Your task to perform on an android device: Go to calendar. Show me events next week Image 0: 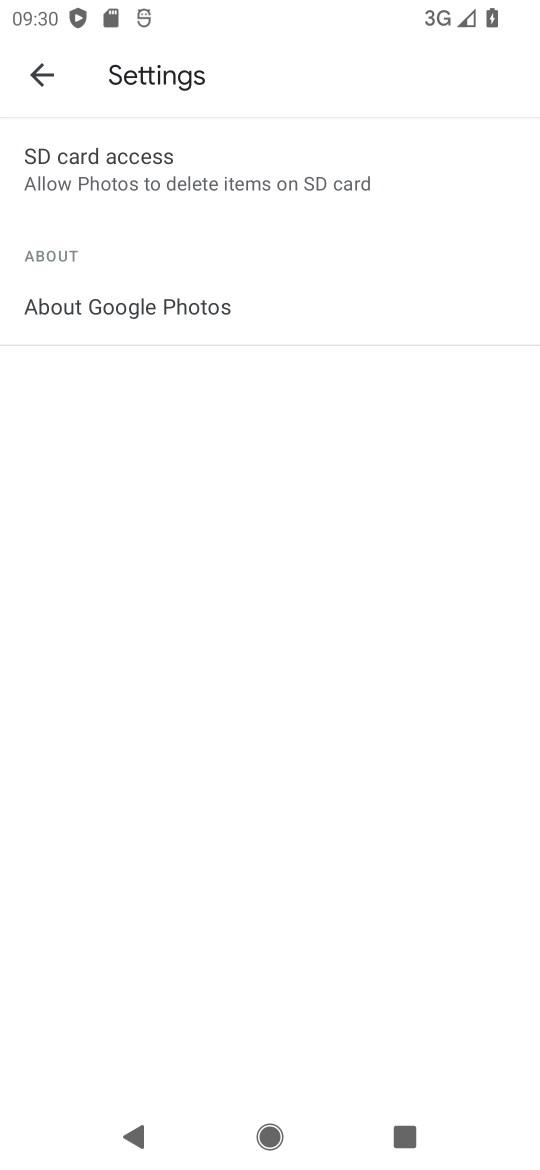
Step 0: press home button
Your task to perform on an android device: Go to calendar. Show me events next week Image 1: 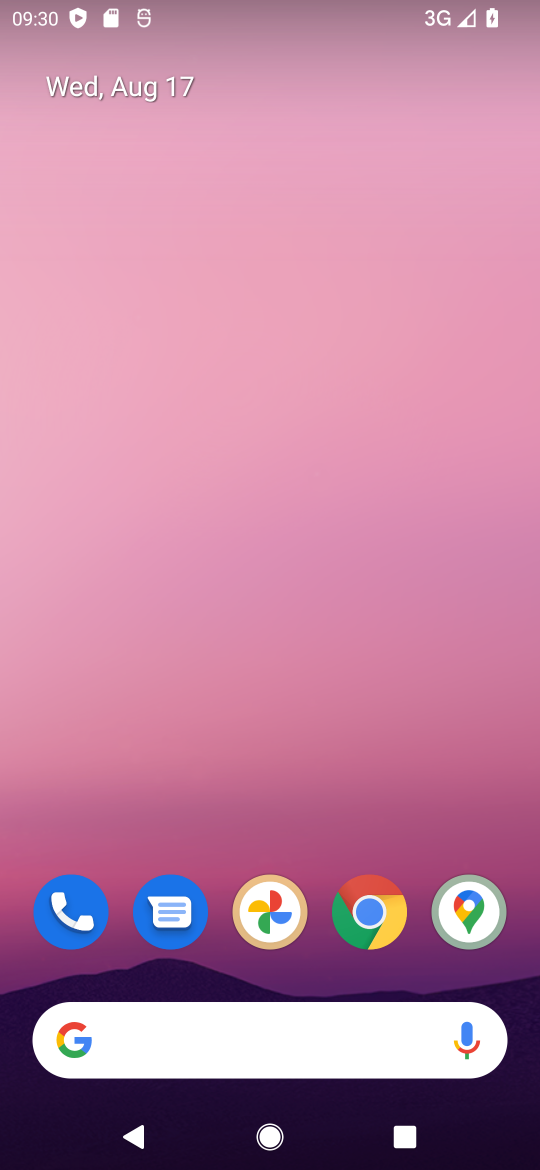
Step 1: drag from (255, 924) to (259, 414)
Your task to perform on an android device: Go to calendar. Show me events next week Image 2: 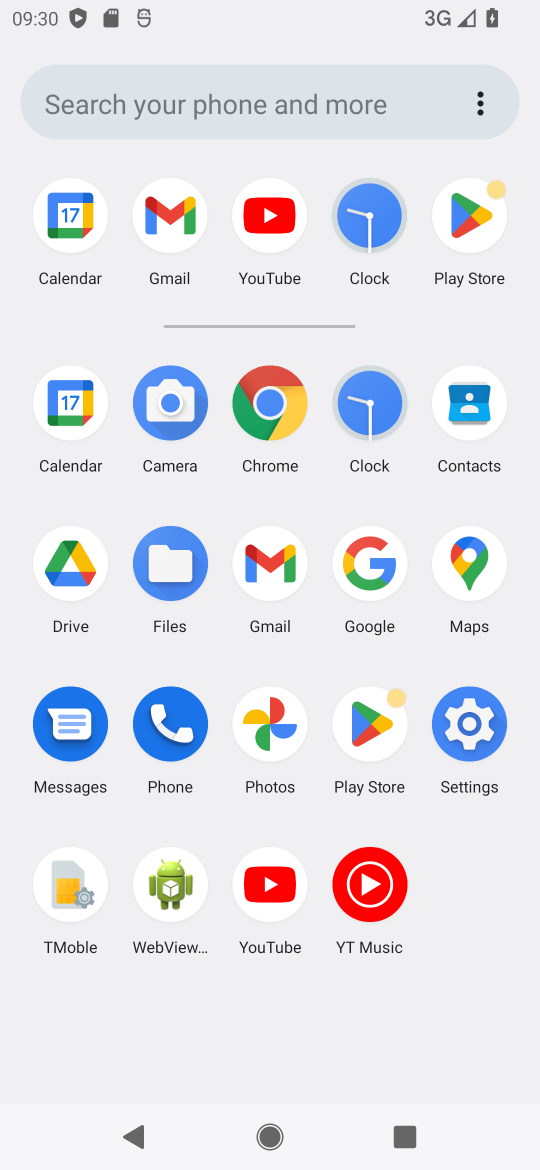
Step 2: click (77, 399)
Your task to perform on an android device: Go to calendar. Show me events next week Image 3: 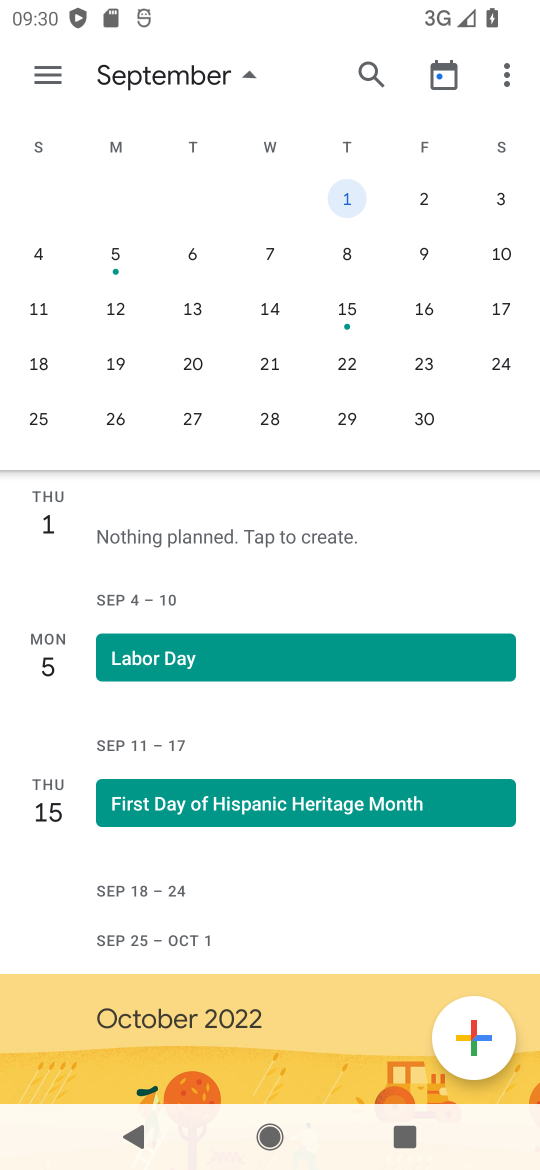
Step 3: drag from (496, 369) to (386, 365)
Your task to perform on an android device: Go to calendar. Show me events next week Image 4: 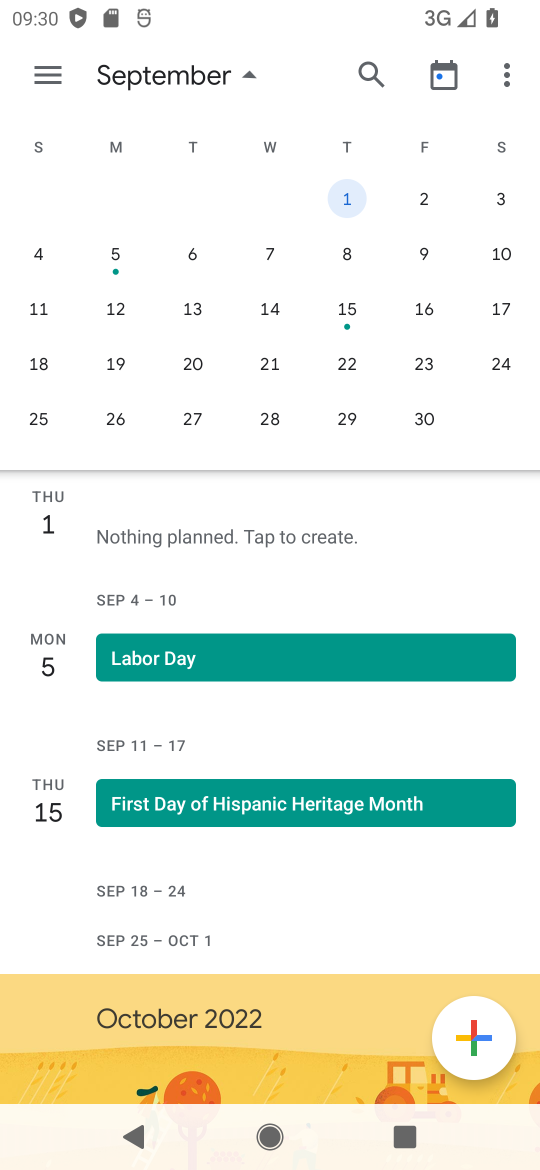
Step 4: drag from (69, 301) to (538, 393)
Your task to perform on an android device: Go to calendar. Show me events next week Image 5: 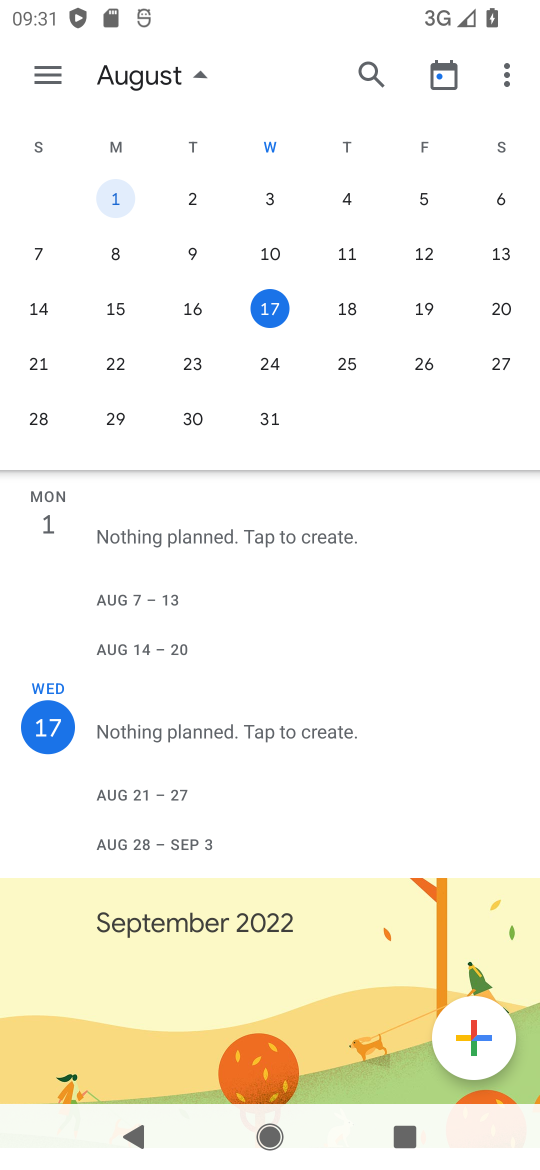
Step 5: click (52, 367)
Your task to perform on an android device: Go to calendar. Show me events next week Image 6: 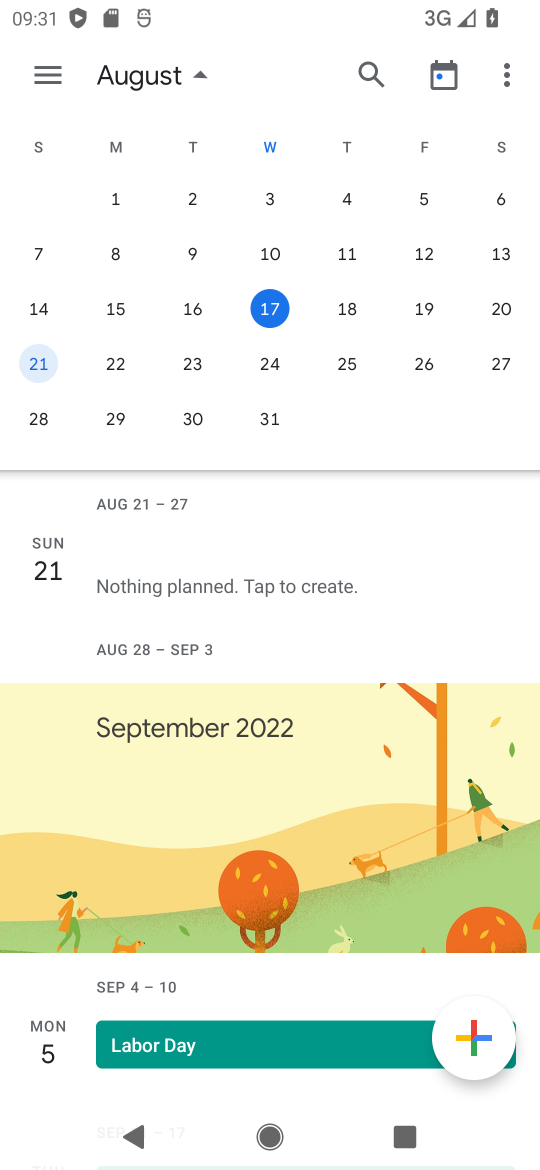
Step 6: task complete